Your task to perform on an android device: Open Android settings Image 0: 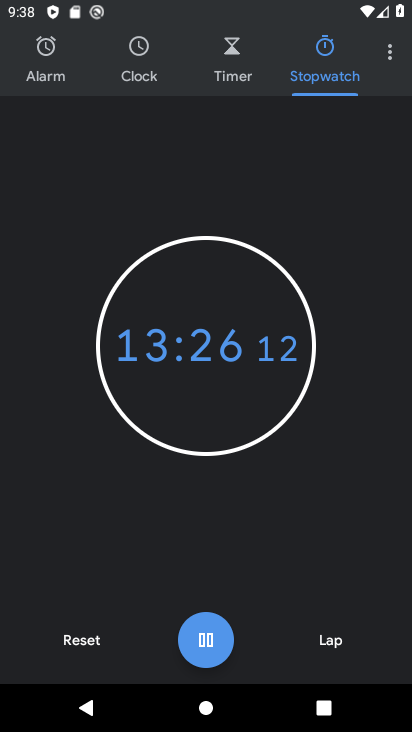
Step 0: press home button
Your task to perform on an android device: Open Android settings Image 1: 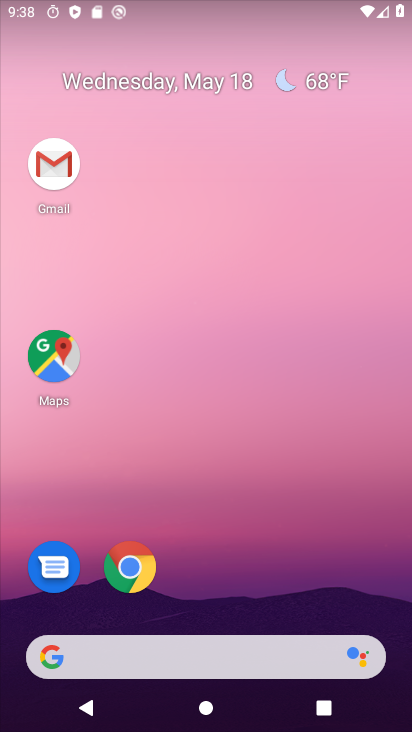
Step 1: drag from (270, 600) to (239, 275)
Your task to perform on an android device: Open Android settings Image 2: 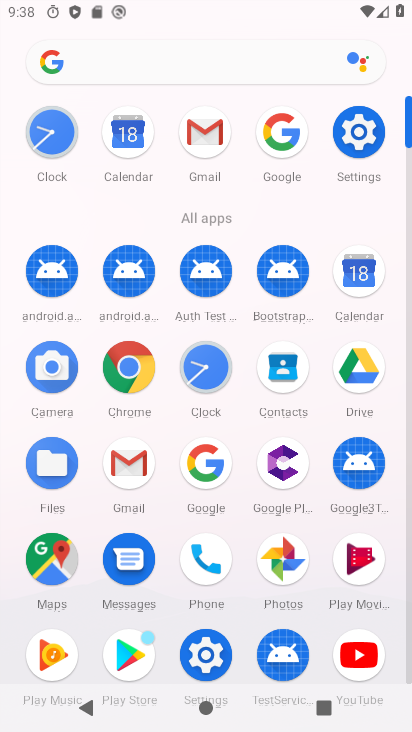
Step 2: click (359, 142)
Your task to perform on an android device: Open Android settings Image 3: 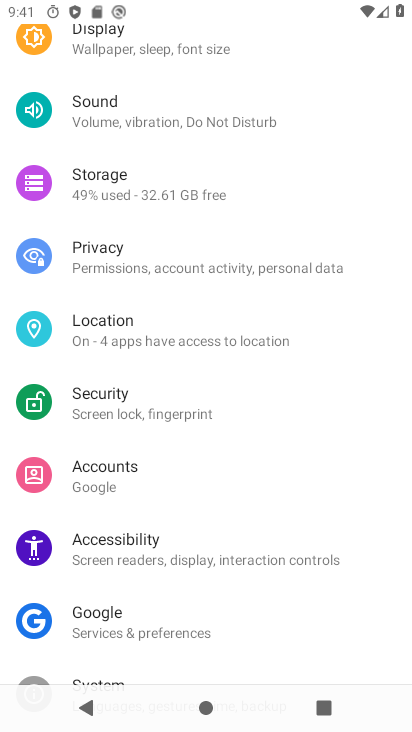
Step 3: task complete